Your task to perform on an android device: add a contact Image 0: 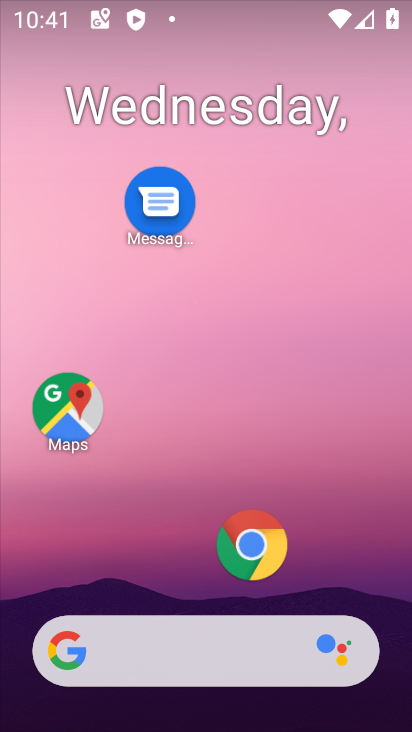
Step 0: drag from (188, 591) to (250, 147)
Your task to perform on an android device: add a contact Image 1: 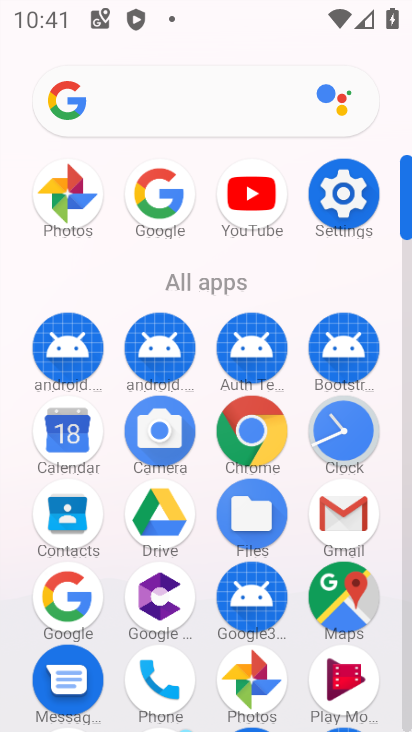
Step 1: drag from (113, 554) to (114, 238)
Your task to perform on an android device: add a contact Image 2: 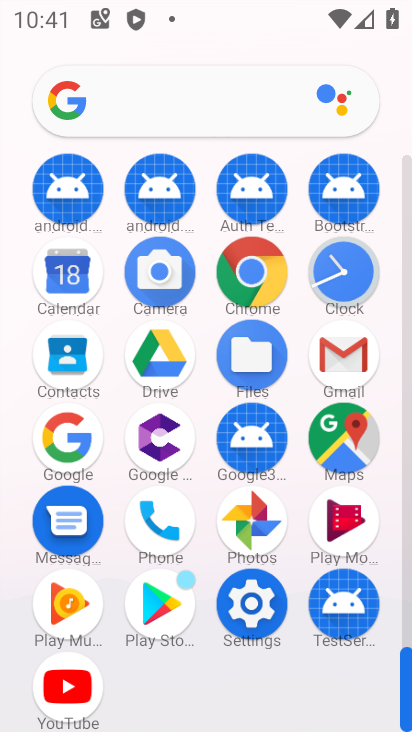
Step 2: click (73, 369)
Your task to perform on an android device: add a contact Image 3: 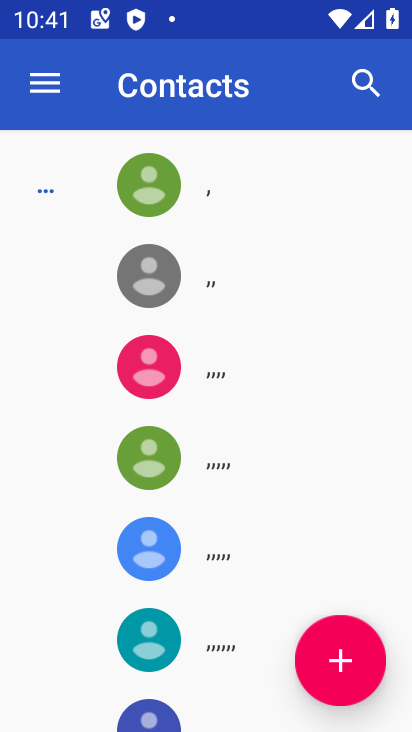
Step 3: click (336, 652)
Your task to perform on an android device: add a contact Image 4: 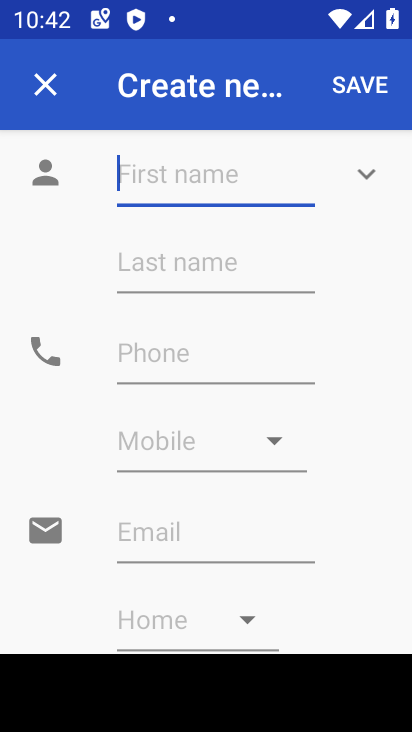
Step 4: type "vhjgfj"
Your task to perform on an android device: add a contact Image 5: 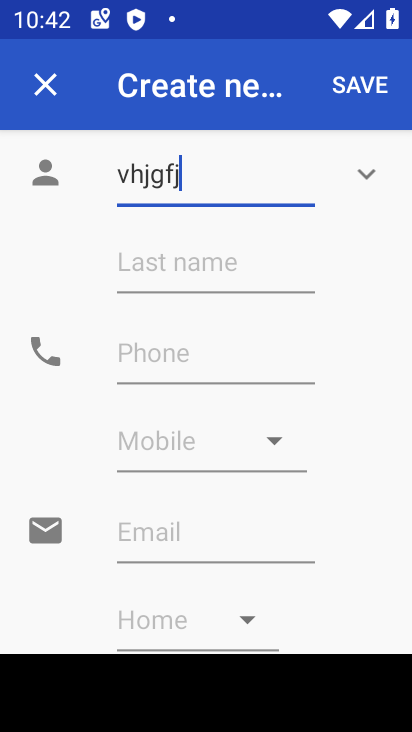
Step 5: click (133, 337)
Your task to perform on an android device: add a contact Image 6: 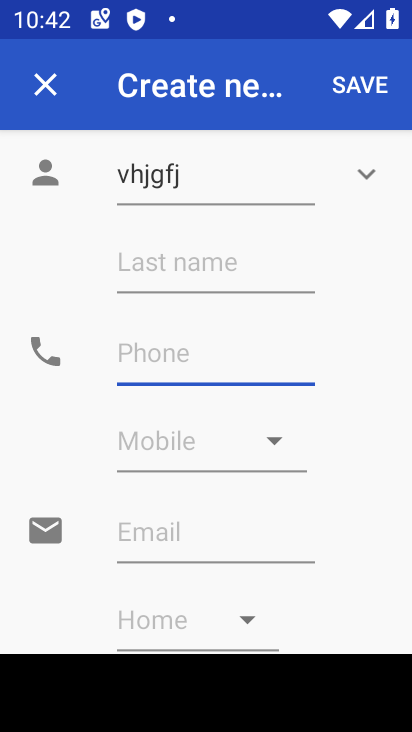
Step 6: type "786845655"
Your task to perform on an android device: add a contact Image 7: 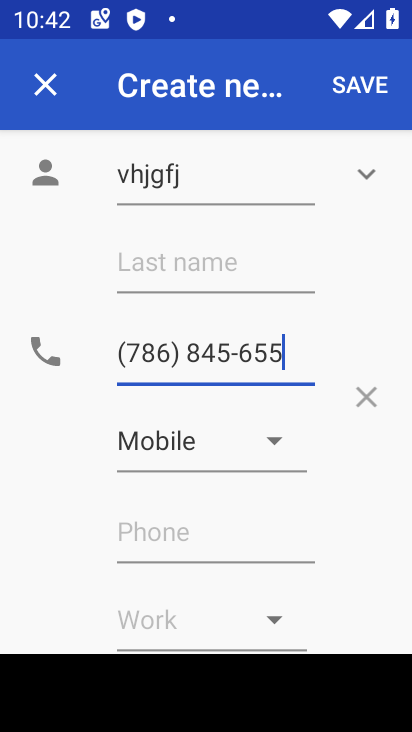
Step 7: click (341, 76)
Your task to perform on an android device: add a contact Image 8: 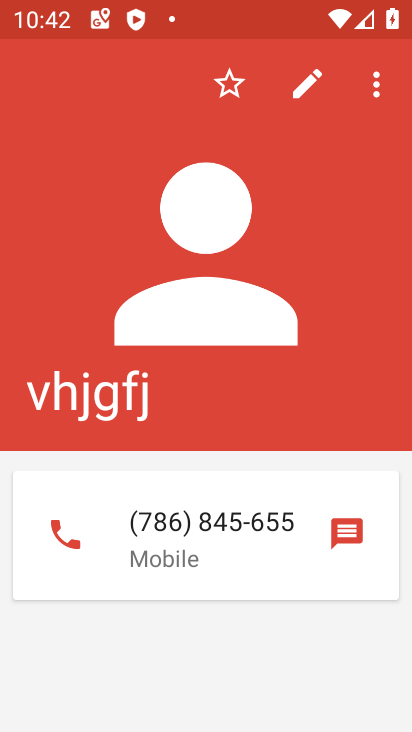
Step 8: task complete